Your task to perform on an android device: toggle wifi Image 0: 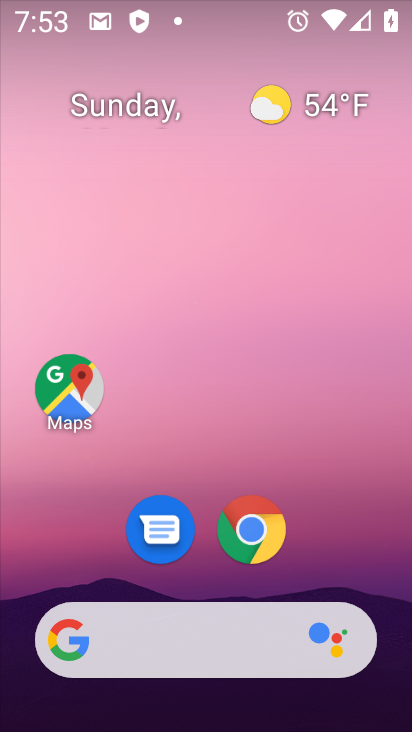
Step 0: drag from (238, 584) to (324, 0)
Your task to perform on an android device: toggle wifi Image 1: 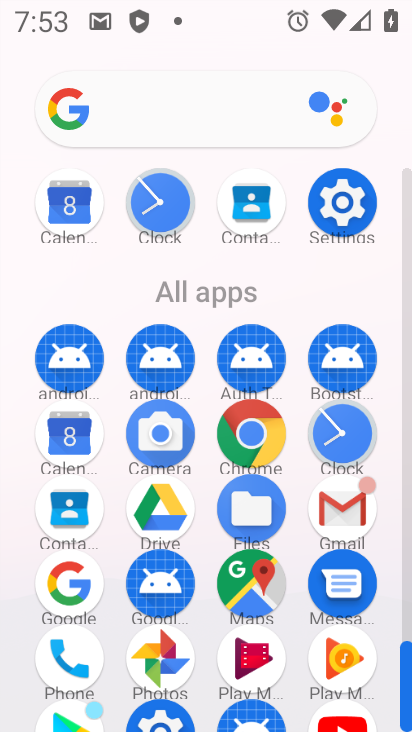
Step 1: click (365, 214)
Your task to perform on an android device: toggle wifi Image 2: 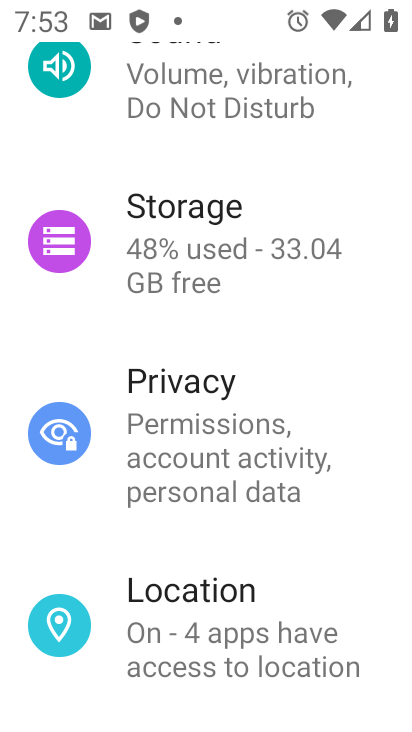
Step 2: drag from (281, 186) to (290, 683)
Your task to perform on an android device: toggle wifi Image 3: 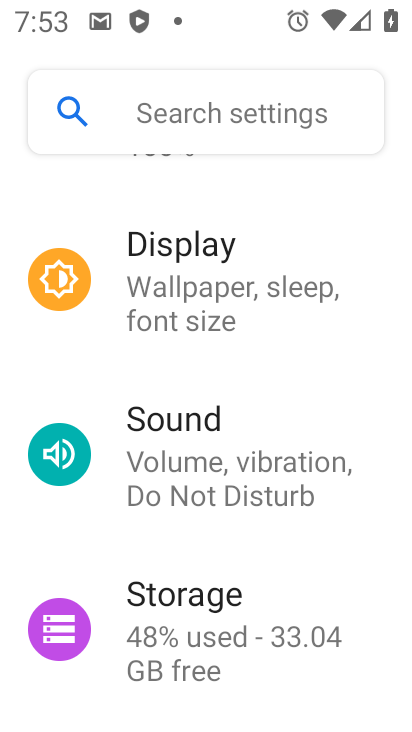
Step 3: drag from (229, 260) to (229, 710)
Your task to perform on an android device: toggle wifi Image 4: 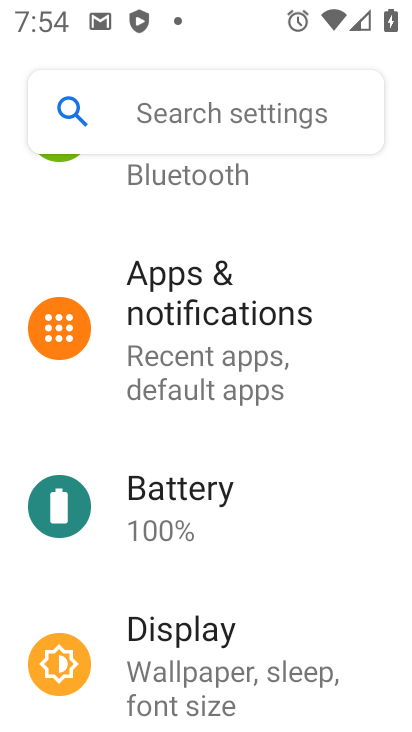
Step 4: drag from (257, 219) to (252, 703)
Your task to perform on an android device: toggle wifi Image 5: 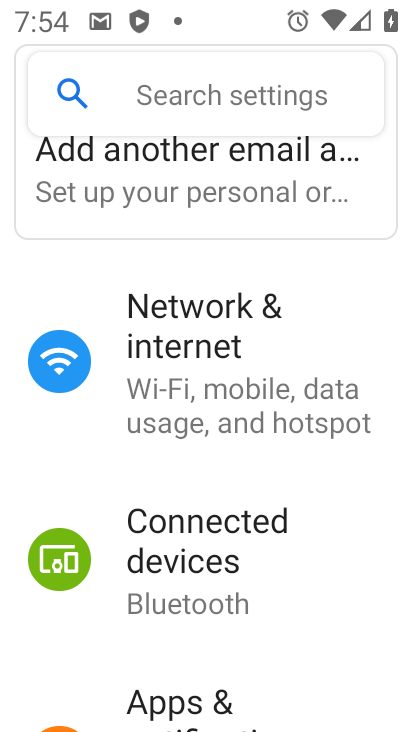
Step 5: click (219, 425)
Your task to perform on an android device: toggle wifi Image 6: 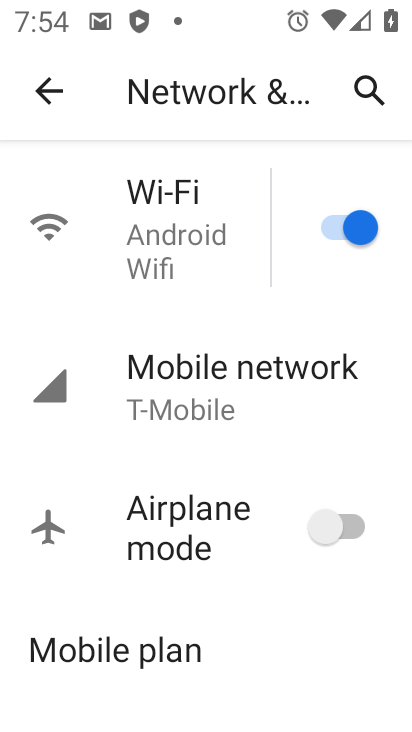
Step 6: click (312, 231)
Your task to perform on an android device: toggle wifi Image 7: 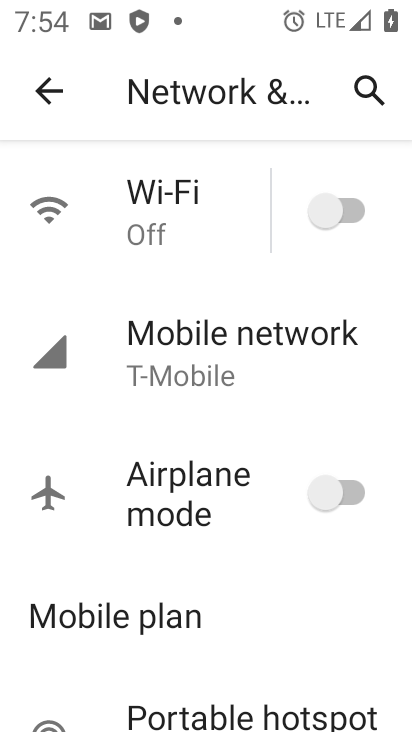
Step 7: task complete